Your task to perform on an android device: Open Google Maps and go to "Timeline" Image 0: 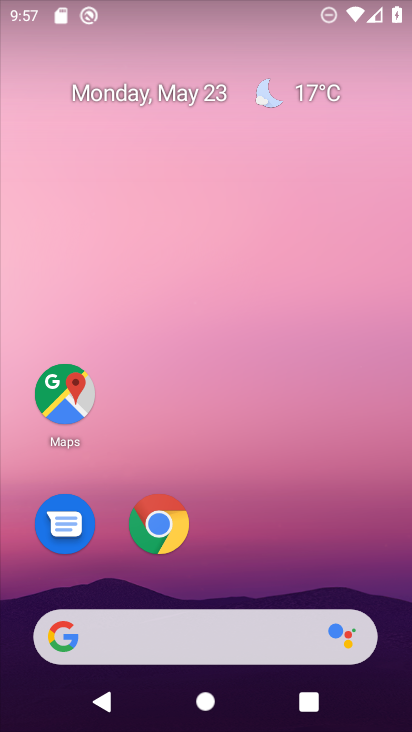
Step 0: click (233, 587)
Your task to perform on an android device: Open Google Maps and go to "Timeline" Image 1: 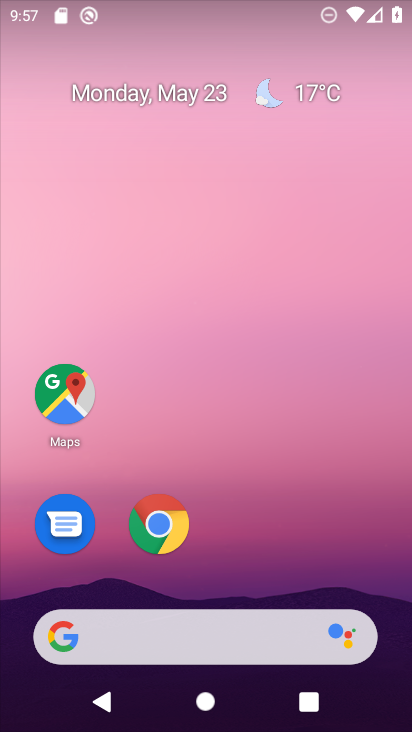
Step 1: click (50, 397)
Your task to perform on an android device: Open Google Maps and go to "Timeline" Image 2: 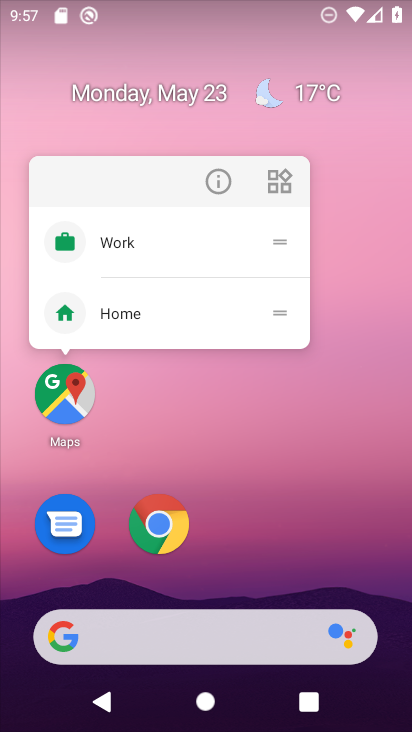
Step 2: click (61, 414)
Your task to perform on an android device: Open Google Maps and go to "Timeline" Image 3: 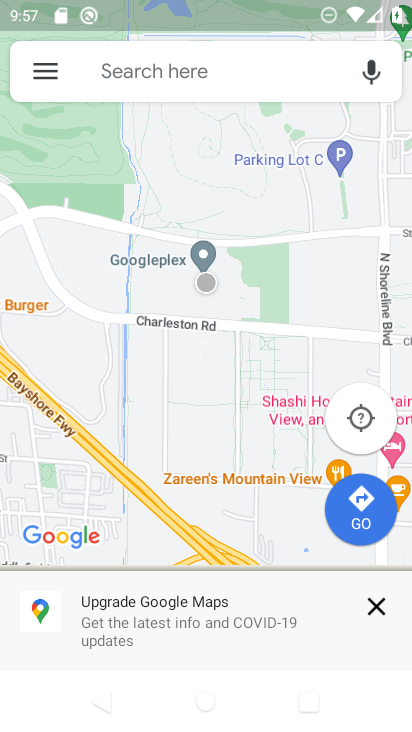
Step 3: click (43, 71)
Your task to perform on an android device: Open Google Maps and go to "Timeline" Image 4: 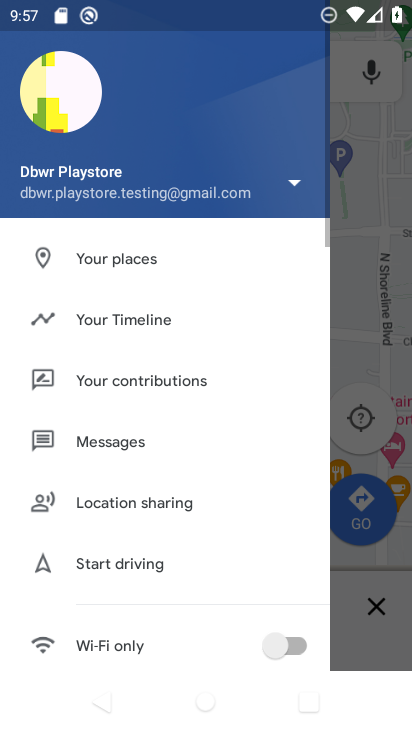
Step 4: click (150, 319)
Your task to perform on an android device: Open Google Maps and go to "Timeline" Image 5: 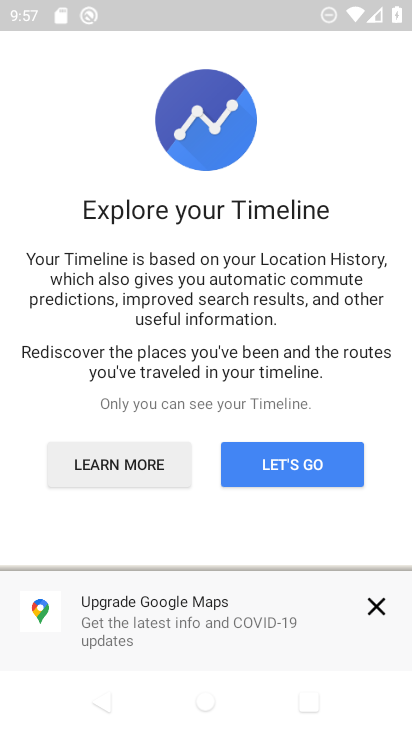
Step 5: click (299, 488)
Your task to perform on an android device: Open Google Maps and go to "Timeline" Image 6: 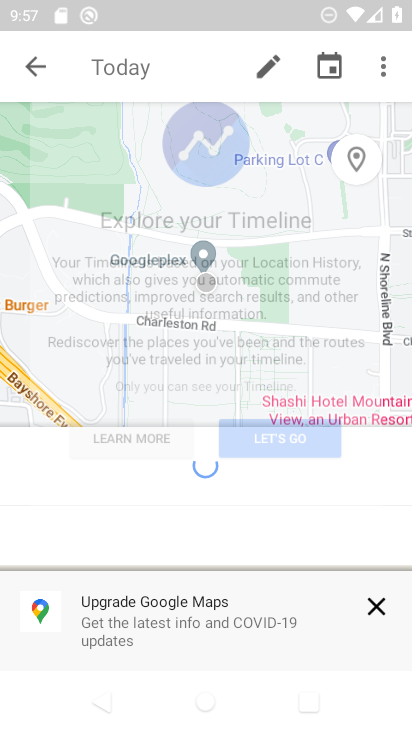
Step 6: click (302, 465)
Your task to perform on an android device: Open Google Maps and go to "Timeline" Image 7: 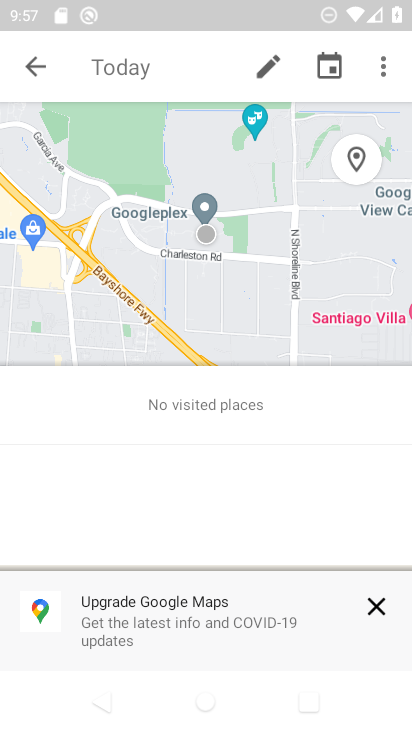
Step 7: task complete